Your task to perform on an android device: star an email in the gmail app Image 0: 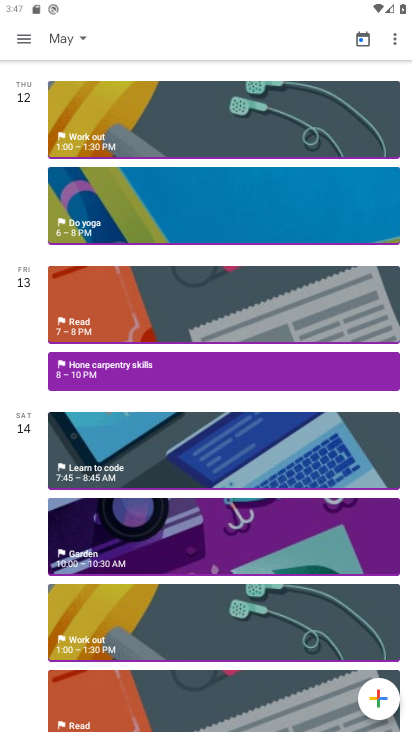
Step 0: press home button
Your task to perform on an android device: star an email in the gmail app Image 1: 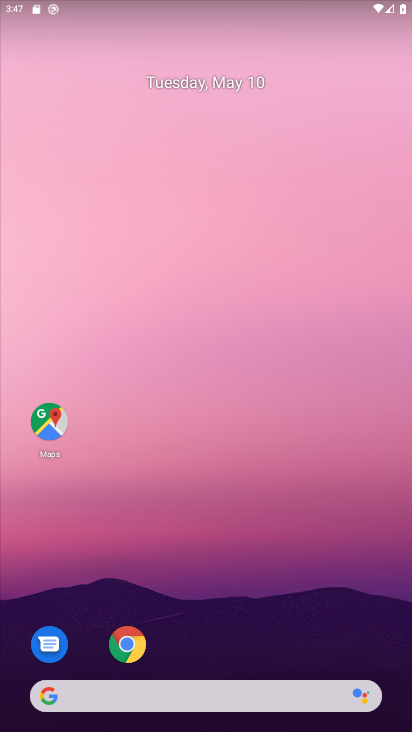
Step 1: drag from (199, 659) to (198, 136)
Your task to perform on an android device: star an email in the gmail app Image 2: 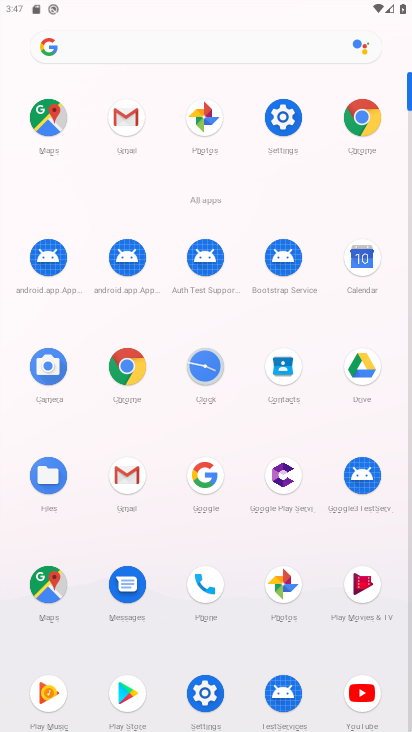
Step 2: click (127, 113)
Your task to perform on an android device: star an email in the gmail app Image 3: 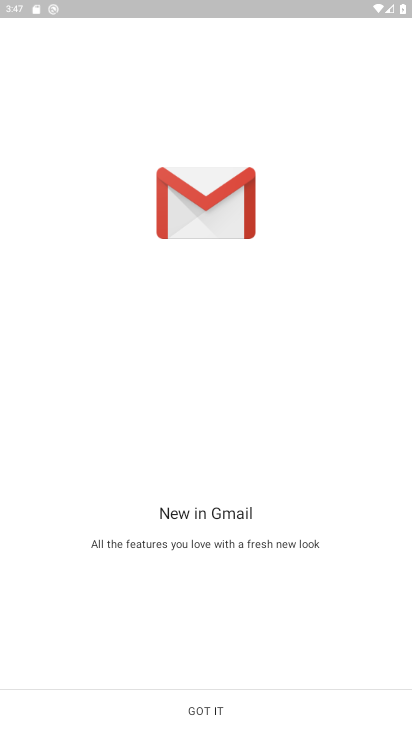
Step 3: click (213, 711)
Your task to perform on an android device: star an email in the gmail app Image 4: 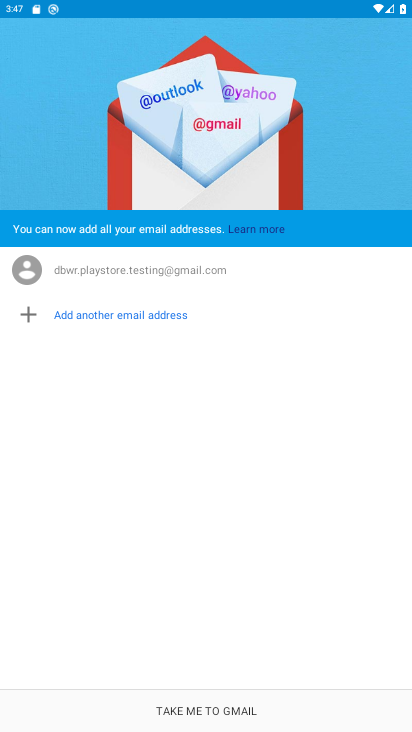
Step 4: click (205, 714)
Your task to perform on an android device: star an email in the gmail app Image 5: 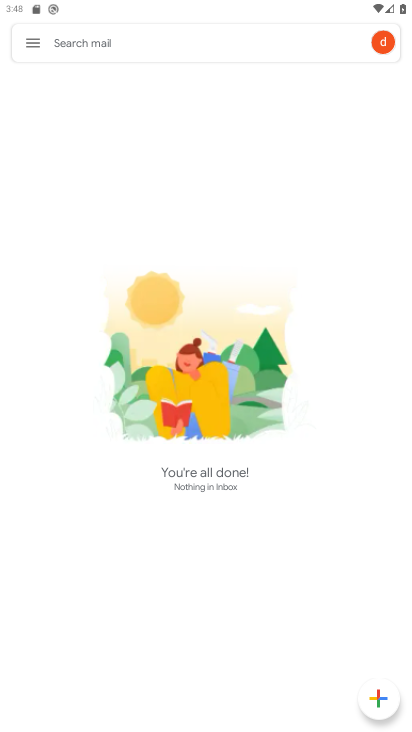
Step 5: task complete